Your task to perform on an android device: Open Yahoo.com Image 0: 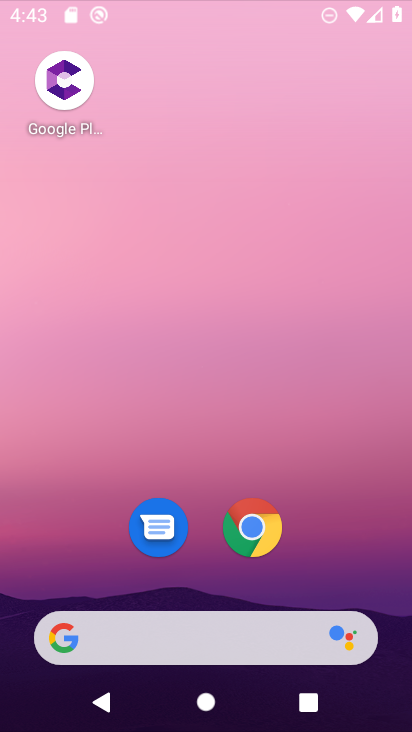
Step 0: drag from (363, 114) to (345, 16)
Your task to perform on an android device: Open Yahoo.com Image 1: 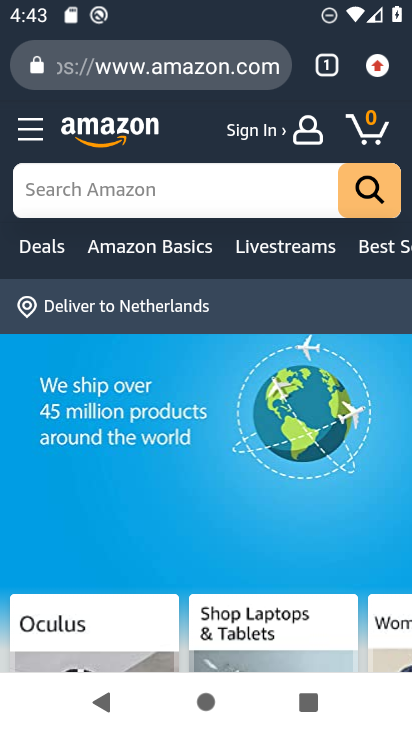
Step 1: click (137, 69)
Your task to perform on an android device: Open Yahoo.com Image 2: 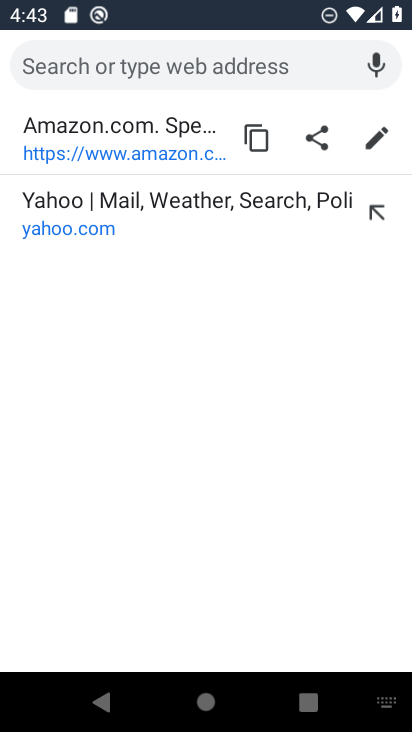
Step 2: click (87, 229)
Your task to perform on an android device: Open Yahoo.com Image 3: 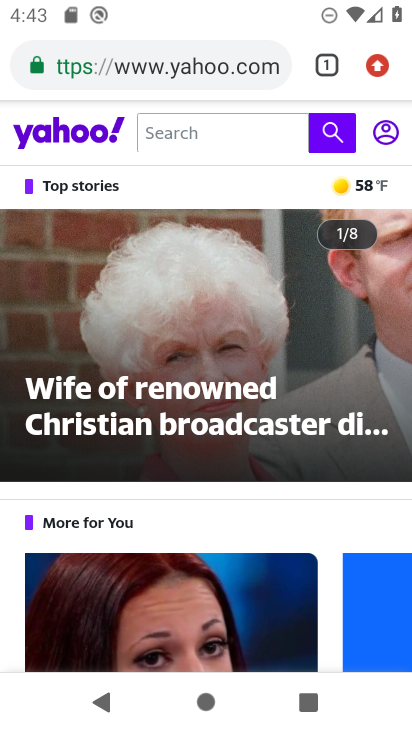
Step 3: task complete